Your task to perform on an android device: Open internet settings Image 0: 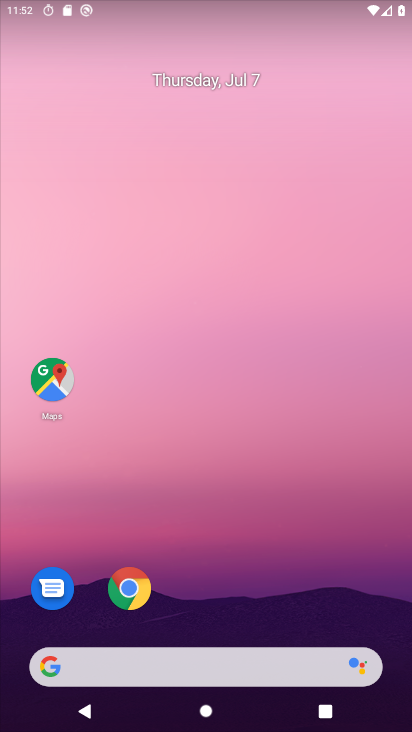
Step 0: drag from (166, 662) to (275, 138)
Your task to perform on an android device: Open internet settings Image 1: 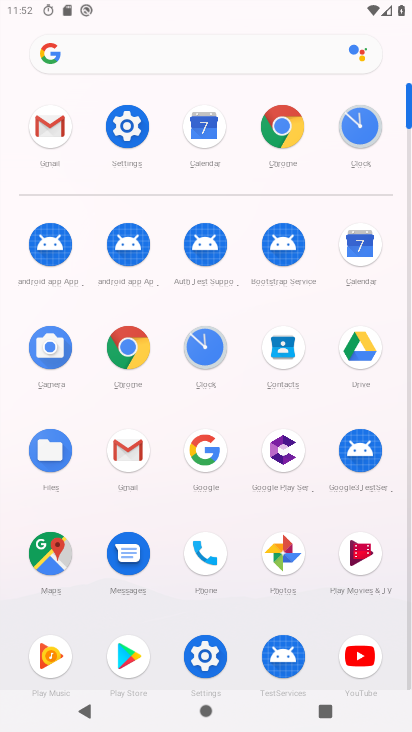
Step 1: click (130, 125)
Your task to perform on an android device: Open internet settings Image 2: 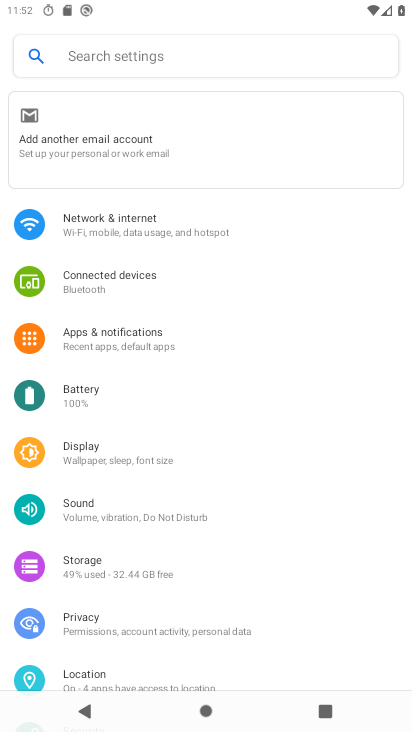
Step 2: click (168, 222)
Your task to perform on an android device: Open internet settings Image 3: 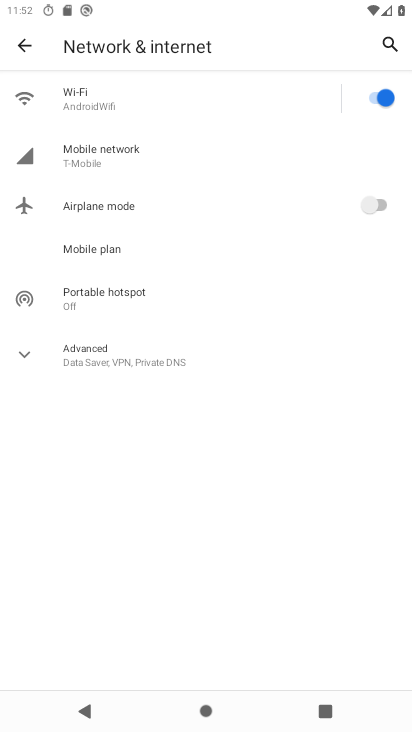
Step 3: task complete